Your task to perform on an android device: toggle sleep mode Image 0: 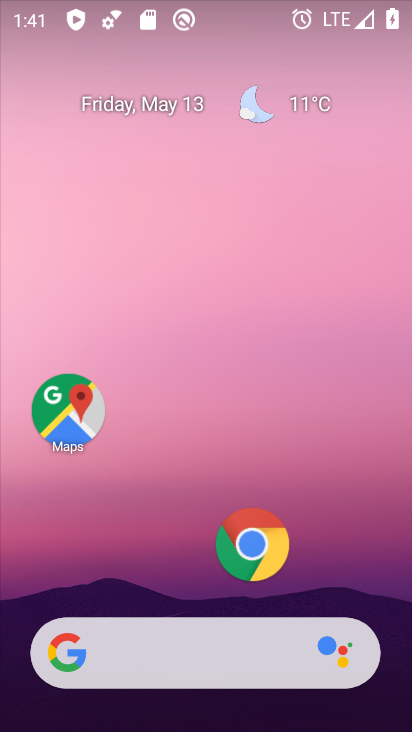
Step 0: drag from (203, 590) to (207, 155)
Your task to perform on an android device: toggle sleep mode Image 1: 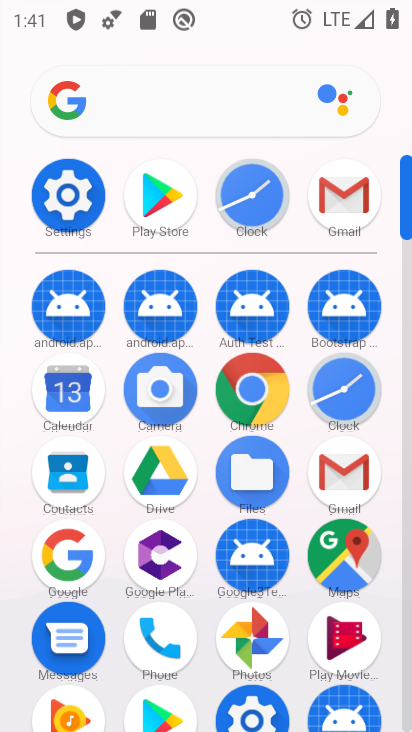
Step 1: click (73, 196)
Your task to perform on an android device: toggle sleep mode Image 2: 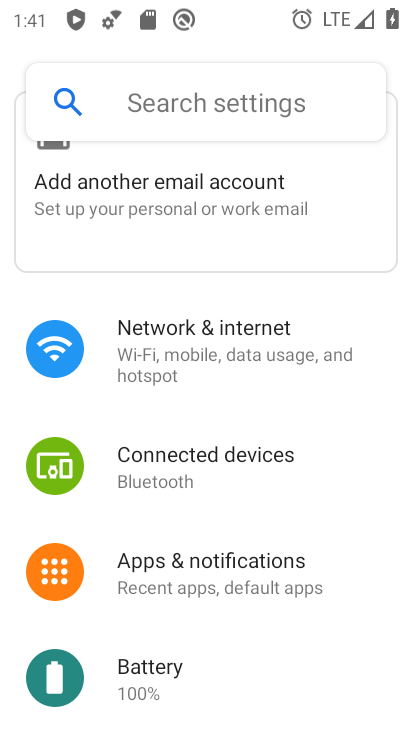
Step 2: drag from (228, 618) to (251, 361)
Your task to perform on an android device: toggle sleep mode Image 3: 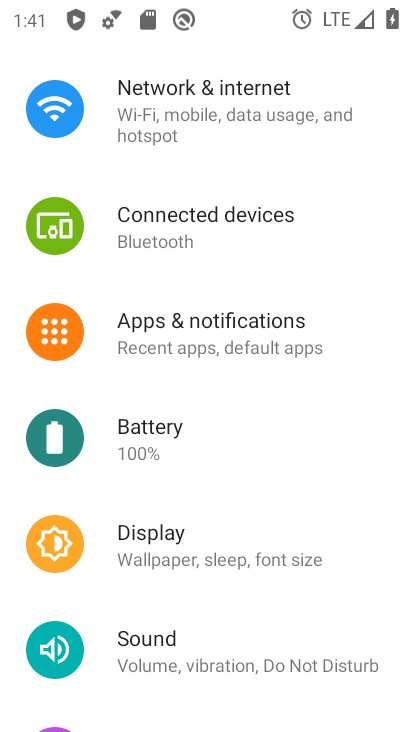
Step 3: click (283, 542)
Your task to perform on an android device: toggle sleep mode Image 4: 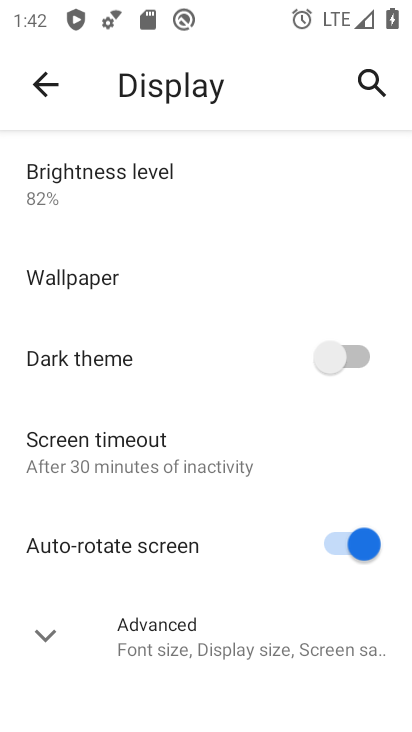
Step 4: task complete